Your task to perform on an android device: Show me productivity apps on the Play Store Image 0: 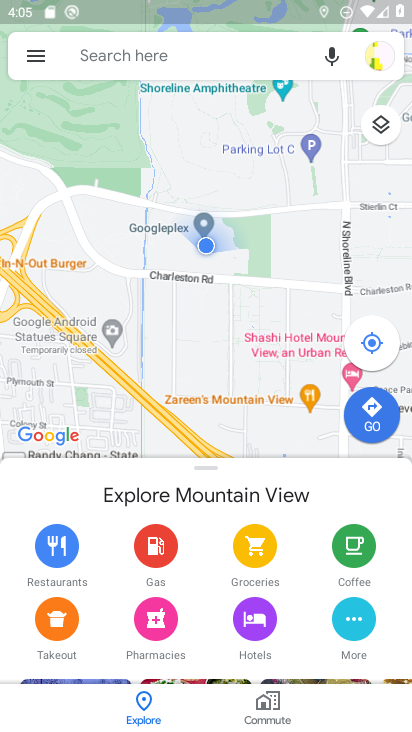
Step 0: press home button
Your task to perform on an android device: Show me productivity apps on the Play Store Image 1: 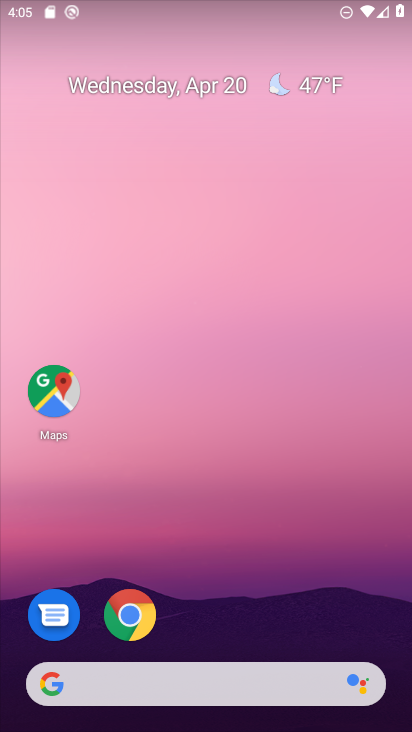
Step 1: drag from (250, 570) to (298, 125)
Your task to perform on an android device: Show me productivity apps on the Play Store Image 2: 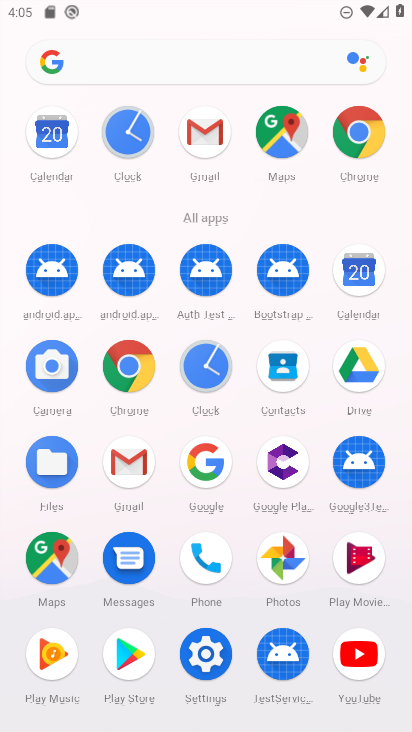
Step 2: click (123, 654)
Your task to perform on an android device: Show me productivity apps on the Play Store Image 3: 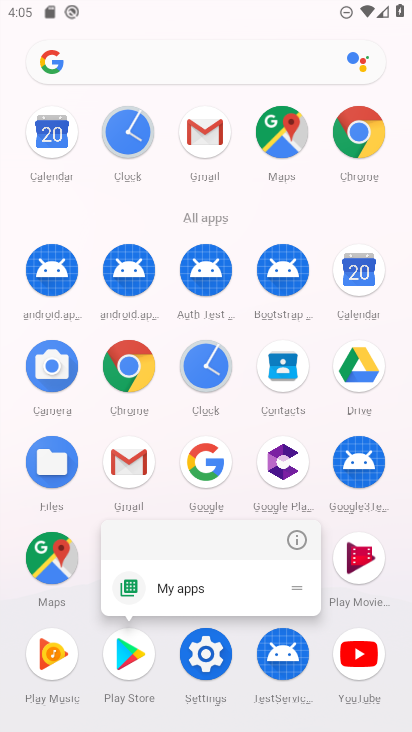
Step 3: click (125, 654)
Your task to perform on an android device: Show me productivity apps on the Play Store Image 4: 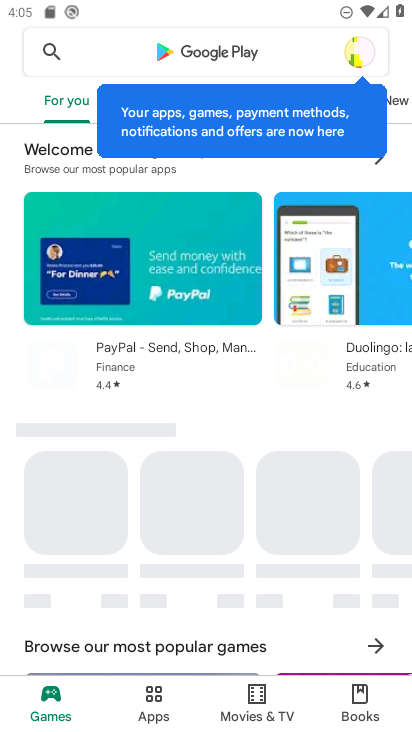
Step 4: click (145, 683)
Your task to perform on an android device: Show me productivity apps on the Play Store Image 5: 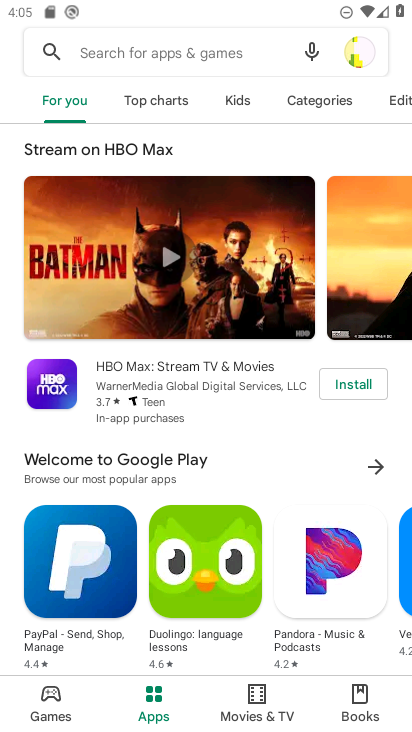
Step 5: drag from (354, 104) to (70, 76)
Your task to perform on an android device: Show me productivity apps on the Play Store Image 6: 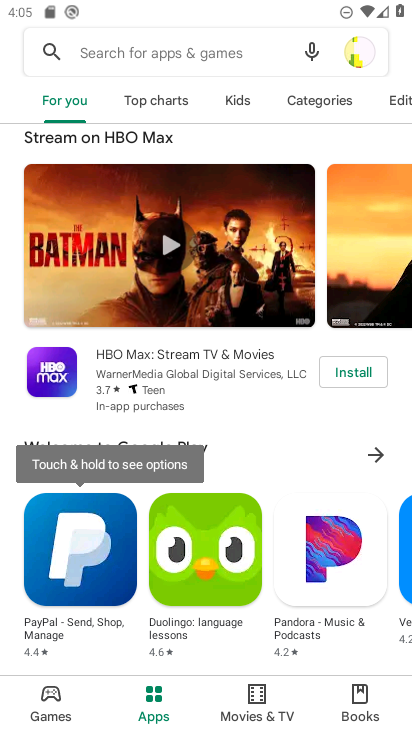
Step 6: click (333, 99)
Your task to perform on an android device: Show me productivity apps on the Play Store Image 7: 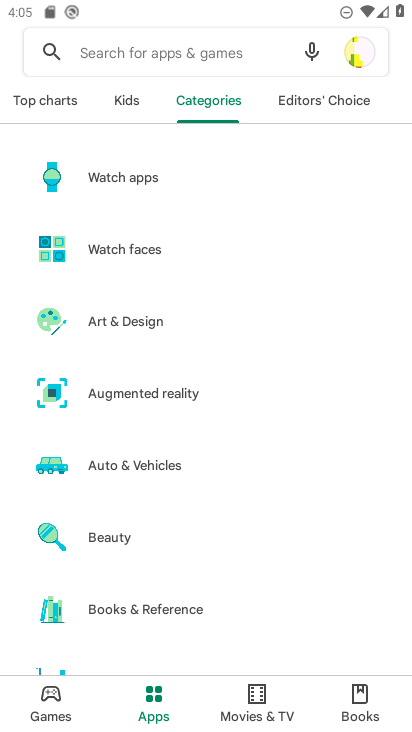
Step 7: drag from (152, 532) to (156, 150)
Your task to perform on an android device: Show me productivity apps on the Play Store Image 8: 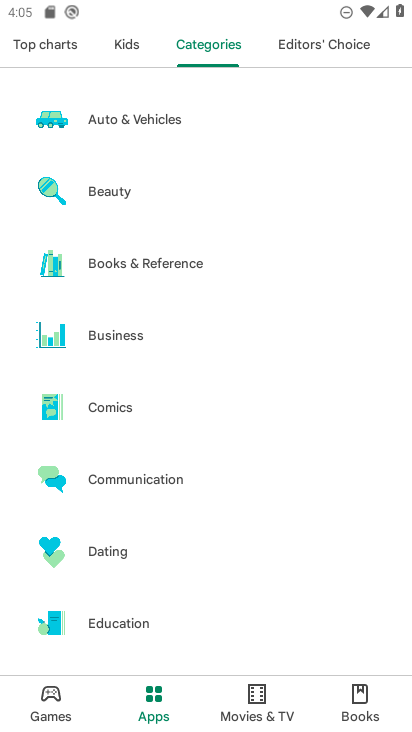
Step 8: drag from (217, 402) to (229, 85)
Your task to perform on an android device: Show me productivity apps on the Play Store Image 9: 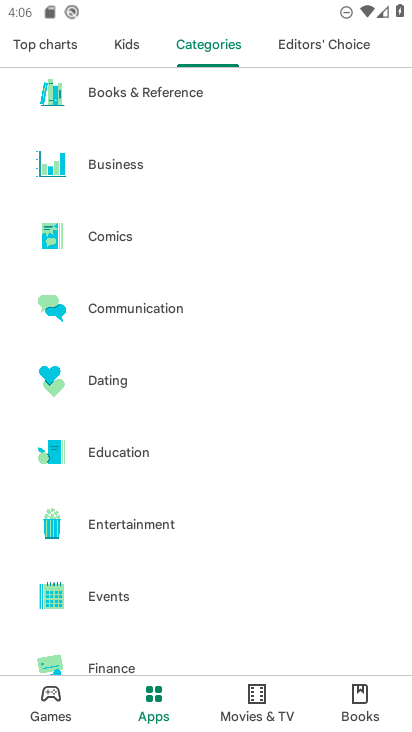
Step 9: drag from (203, 574) to (237, 78)
Your task to perform on an android device: Show me productivity apps on the Play Store Image 10: 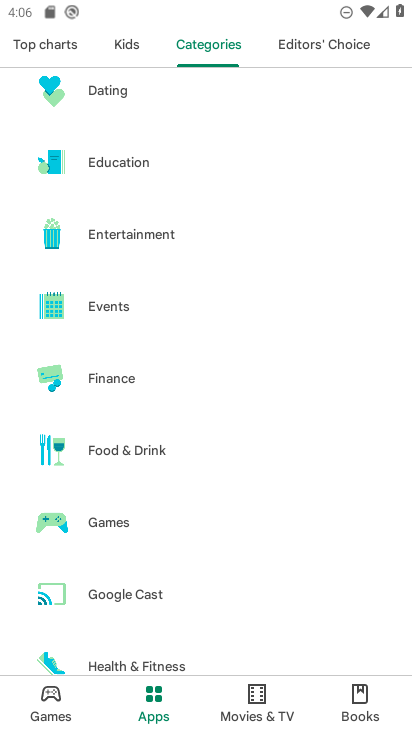
Step 10: click (316, 48)
Your task to perform on an android device: Show me productivity apps on the Play Store Image 11: 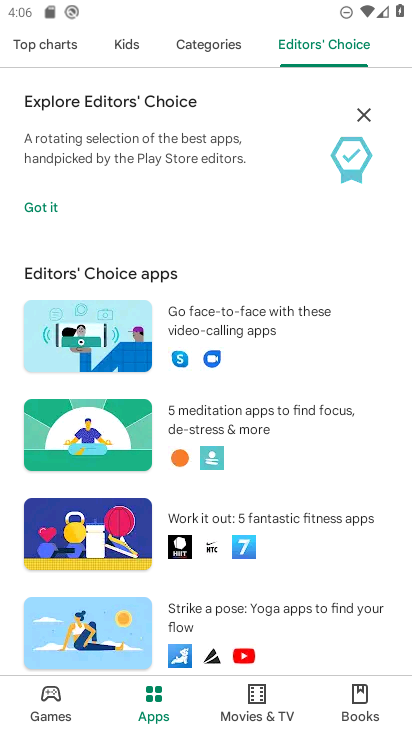
Step 11: click (187, 47)
Your task to perform on an android device: Show me productivity apps on the Play Store Image 12: 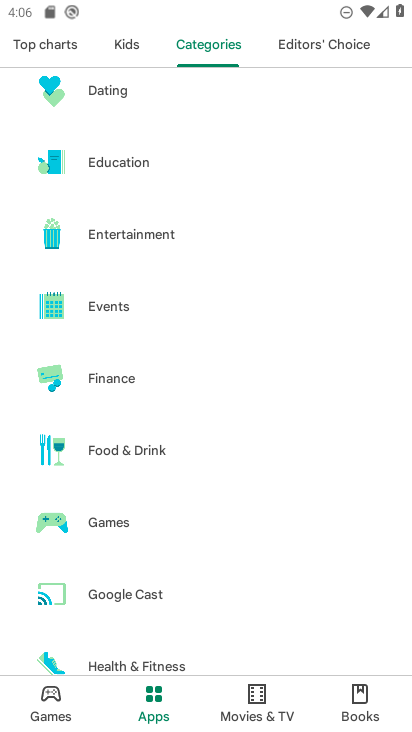
Step 12: drag from (169, 573) to (248, 123)
Your task to perform on an android device: Show me productivity apps on the Play Store Image 13: 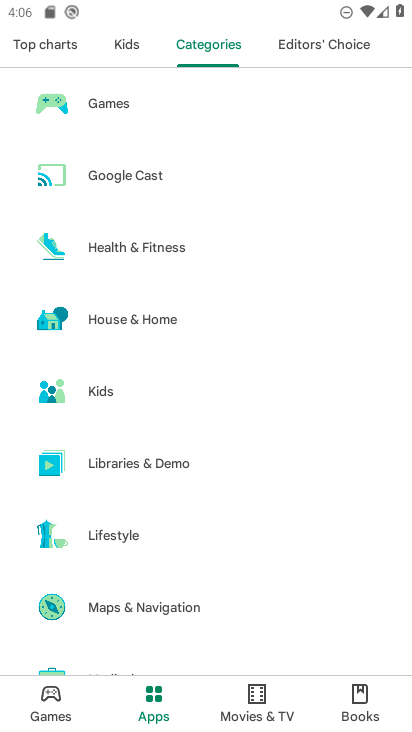
Step 13: drag from (229, 572) to (267, 126)
Your task to perform on an android device: Show me productivity apps on the Play Store Image 14: 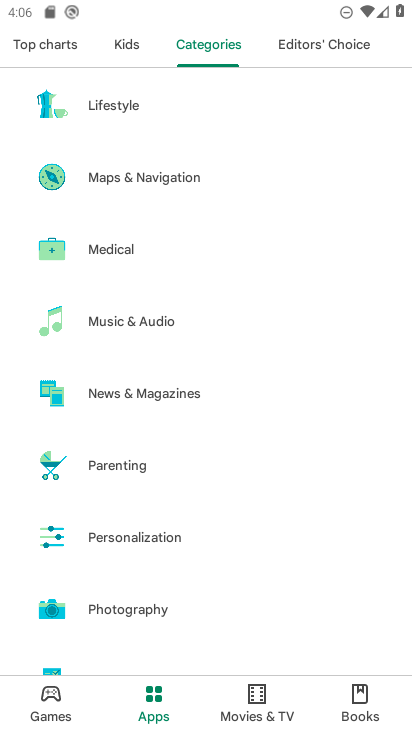
Step 14: drag from (182, 616) to (260, 177)
Your task to perform on an android device: Show me productivity apps on the Play Store Image 15: 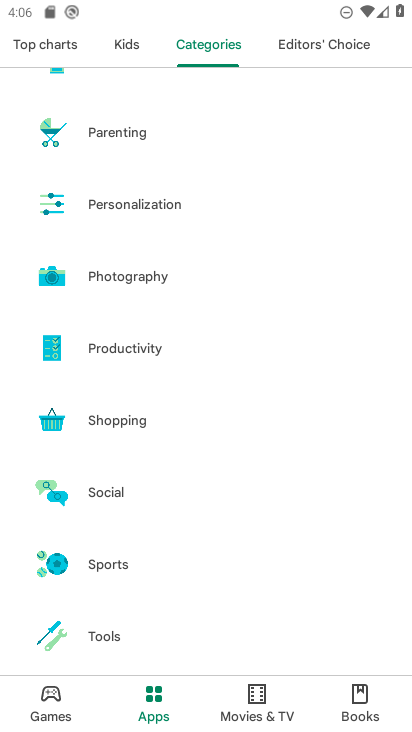
Step 15: click (145, 349)
Your task to perform on an android device: Show me productivity apps on the Play Store Image 16: 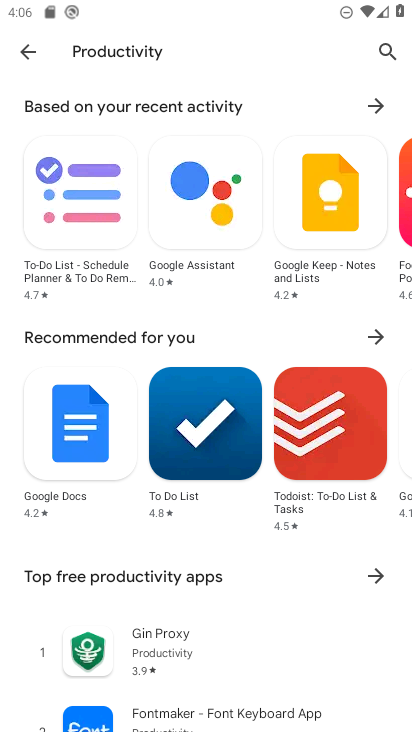
Step 16: task complete